Your task to perform on an android device: turn on notifications settings in the gmail app Image 0: 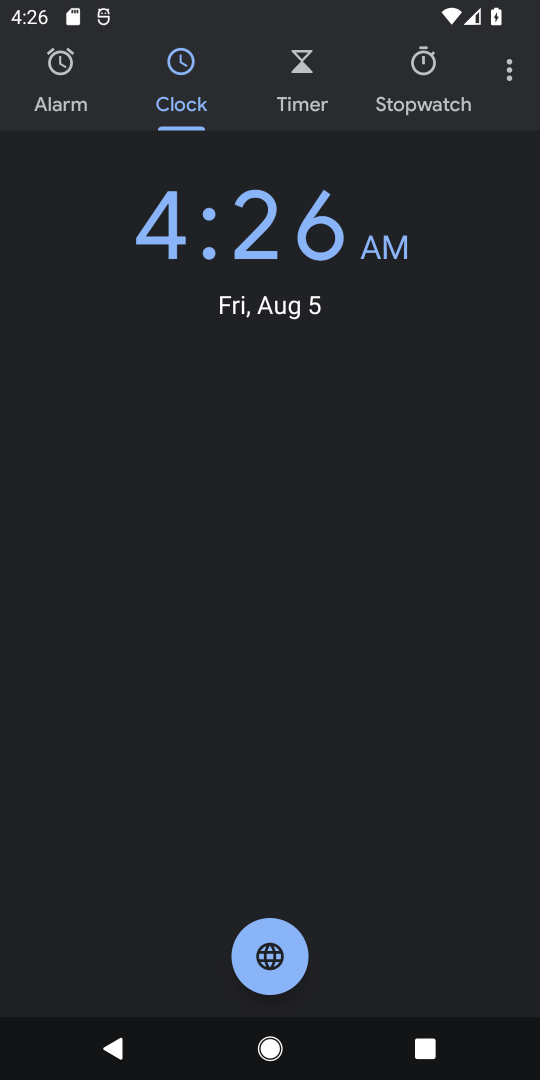
Step 0: press home button
Your task to perform on an android device: turn on notifications settings in the gmail app Image 1: 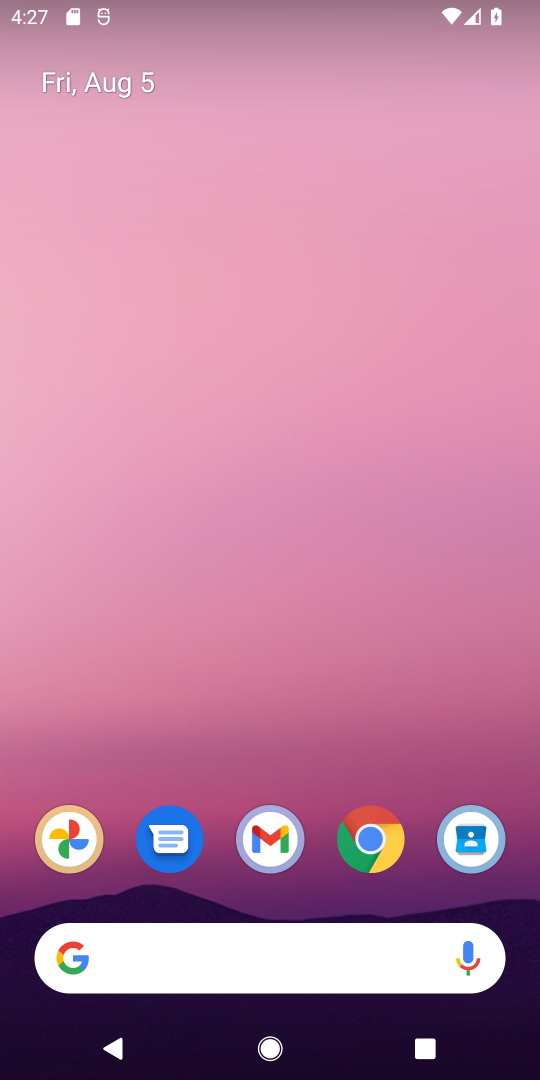
Step 1: drag from (285, 722) to (296, 254)
Your task to perform on an android device: turn on notifications settings in the gmail app Image 2: 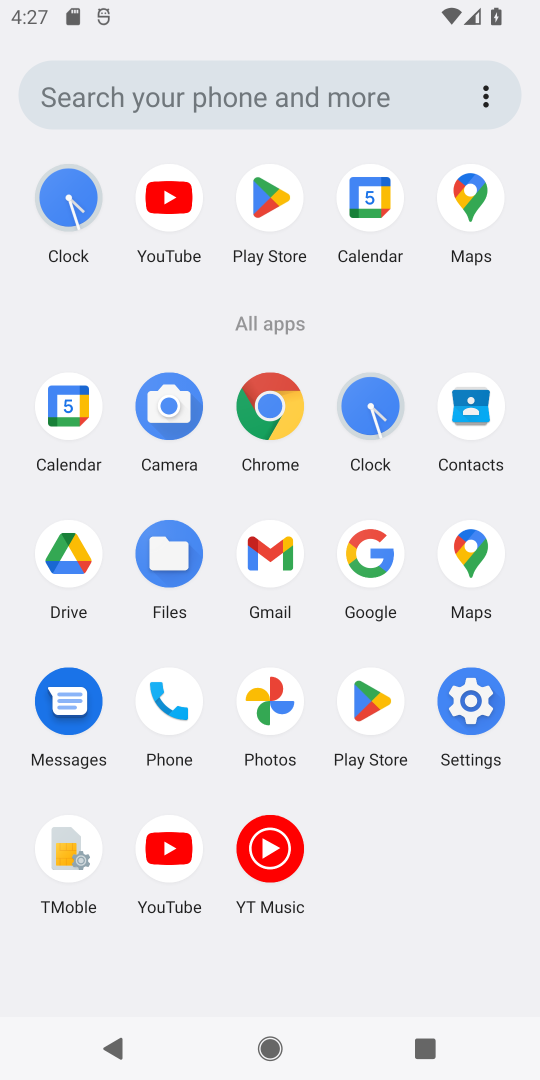
Step 2: click (259, 578)
Your task to perform on an android device: turn on notifications settings in the gmail app Image 3: 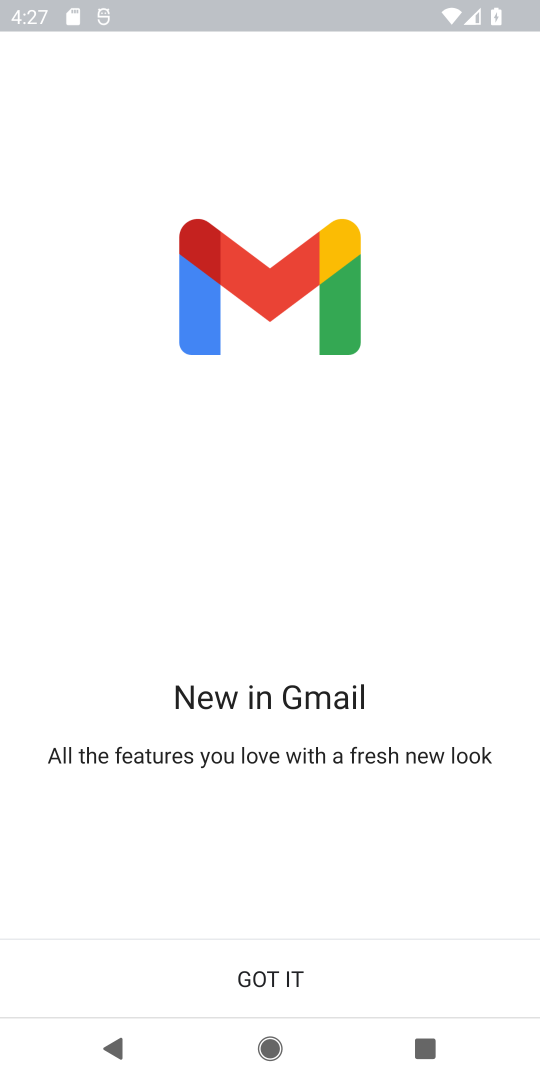
Step 3: click (289, 955)
Your task to perform on an android device: turn on notifications settings in the gmail app Image 4: 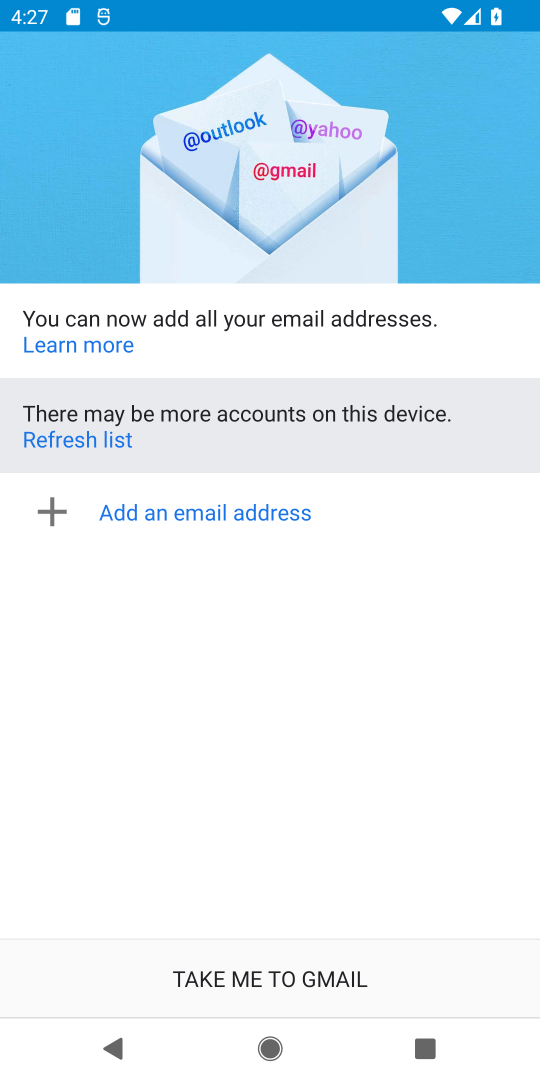
Step 4: click (289, 955)
Your task to perform on an android device: turn on notifications settings in the gmail app Image 5: 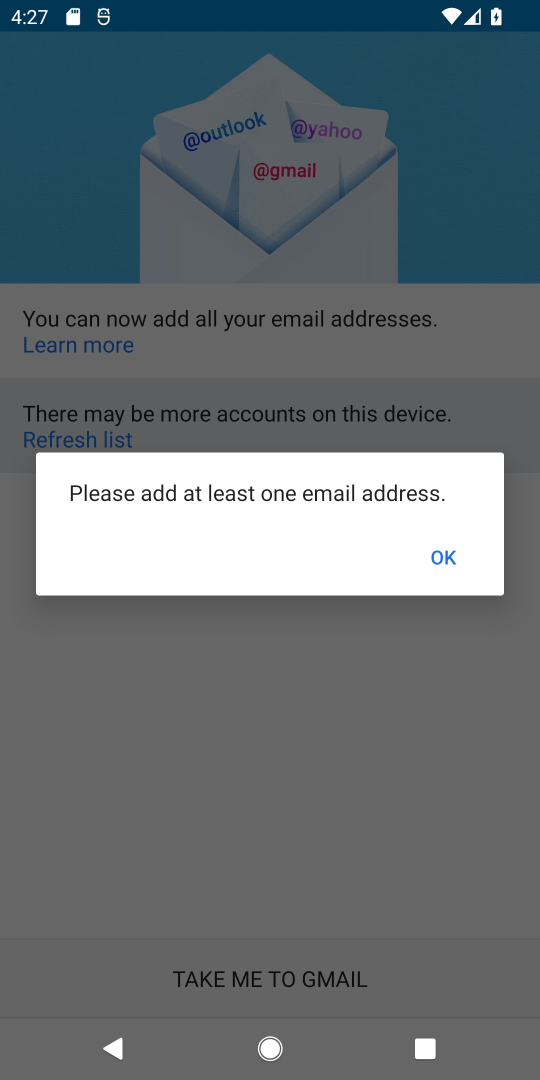
Step 5: click (450, 558)
Your task to perform on an android device: turn on notifications settings in the gmail app Image 6: 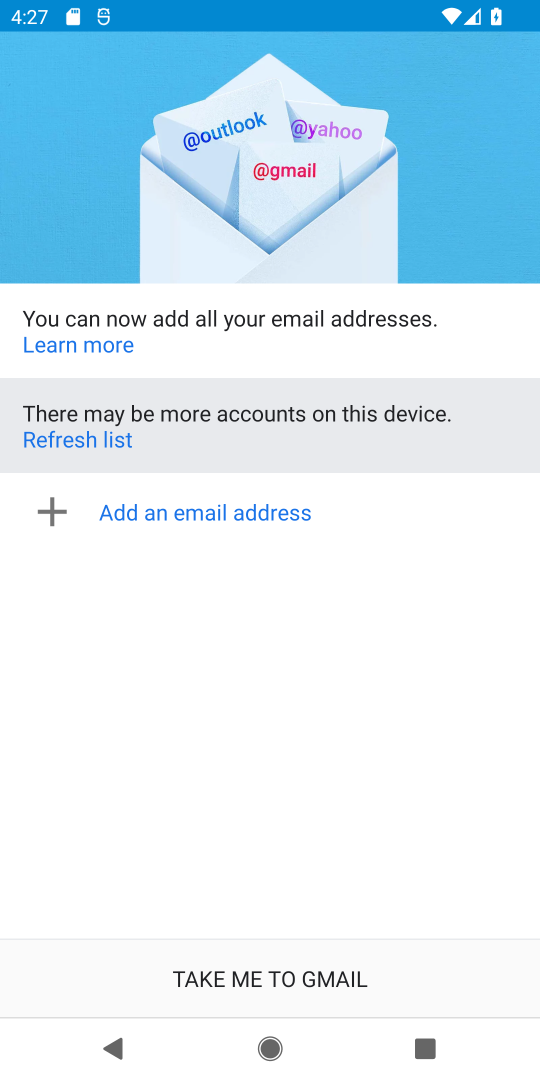
Step 6: click (305, 960)
Your task to perform on an android device: turn on notifications settings in the gmail app Image 7: 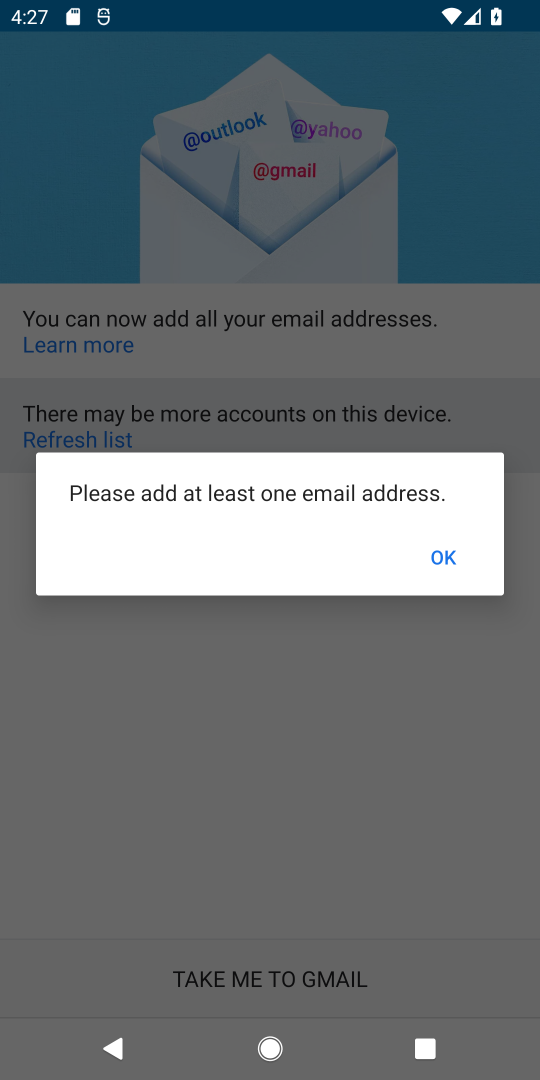
Step 7: click (423, 545)
Your task to perform on an android device: turn on notifications settings in the gmail app Image 8: 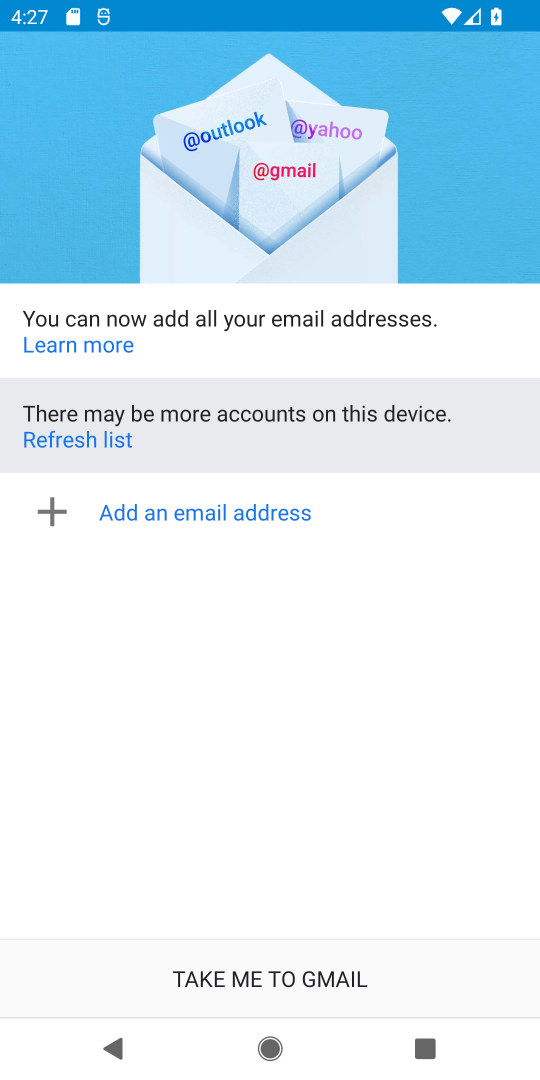
Step 8: click (284, 978)
Your task to perform on an android device: turn on notifications settings in the gmail app Image 9: 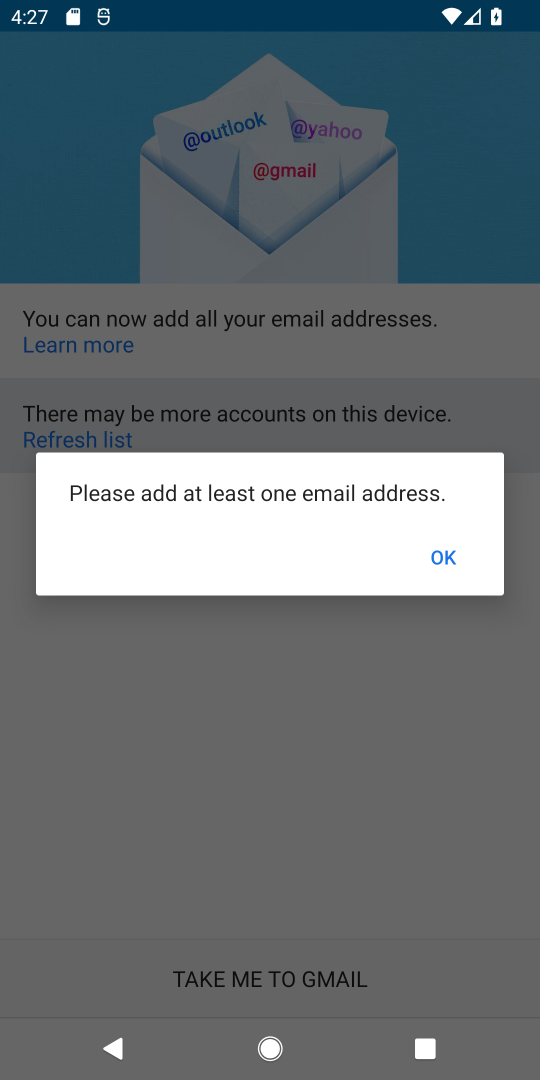
Step 9: click (444, 549)
Your task to perform on an android device: turn on notifications settings in the gmail app Image 10: 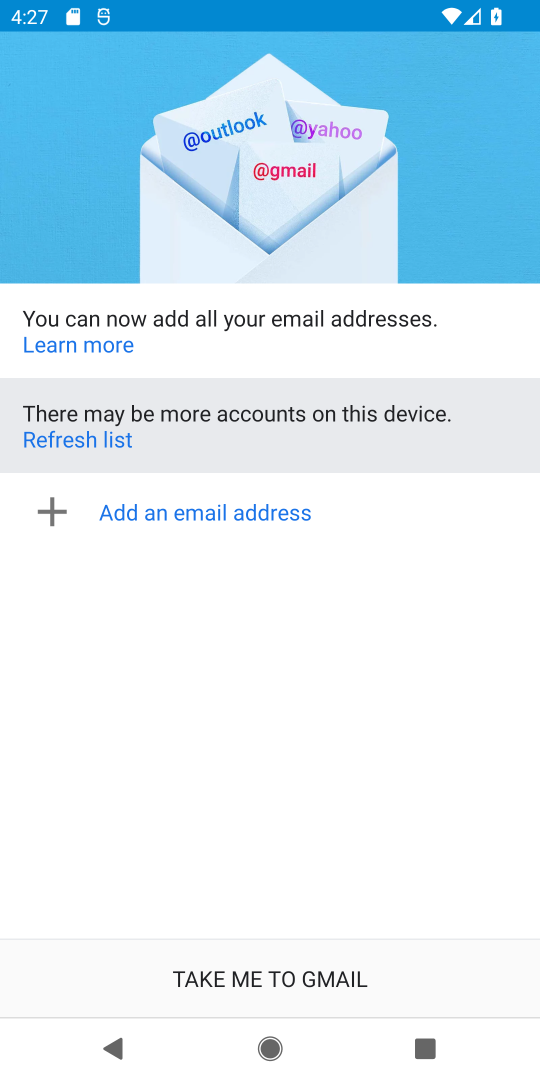
Step 10: click (282, 953)
Your task to perform on an android device: turn on notifications settings in the gmail app Image 11: 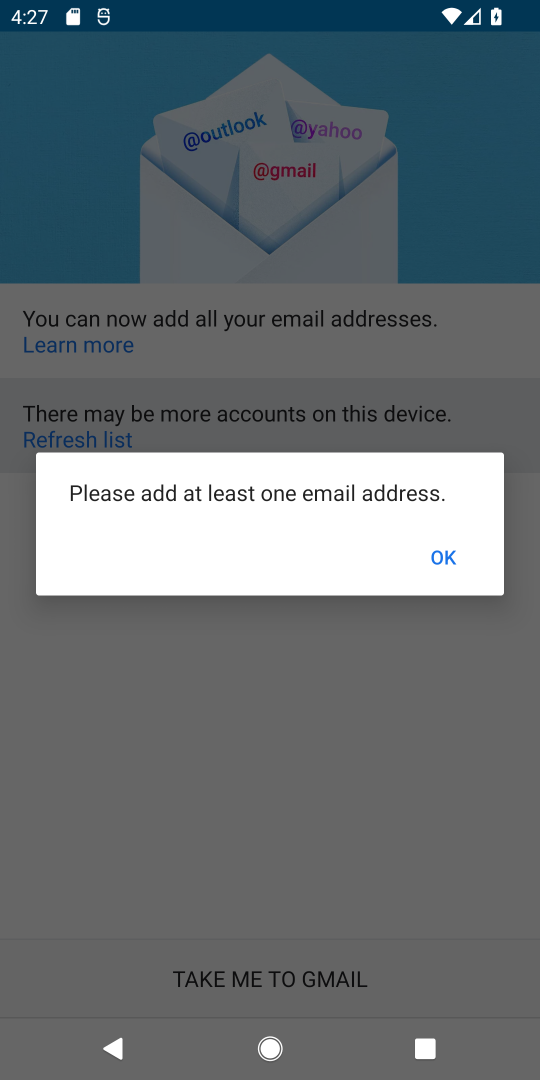
Step 11: click (452, 568)
Your task to perform on an android device: turn on notifications settings in the gmail app Image 12: 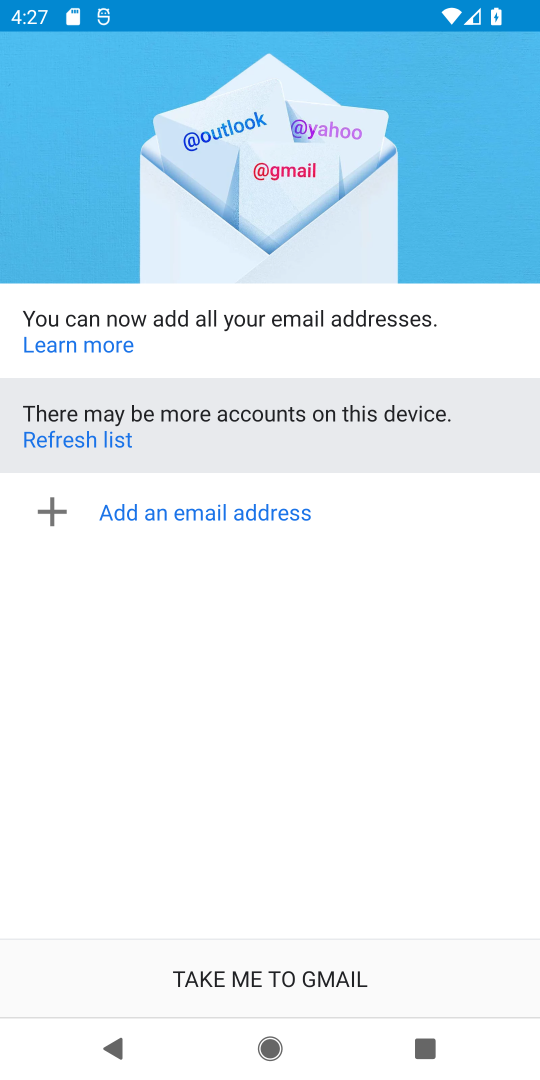
Step 12: task complete